Your task to perform on an android device: Show me recent news Image 0: 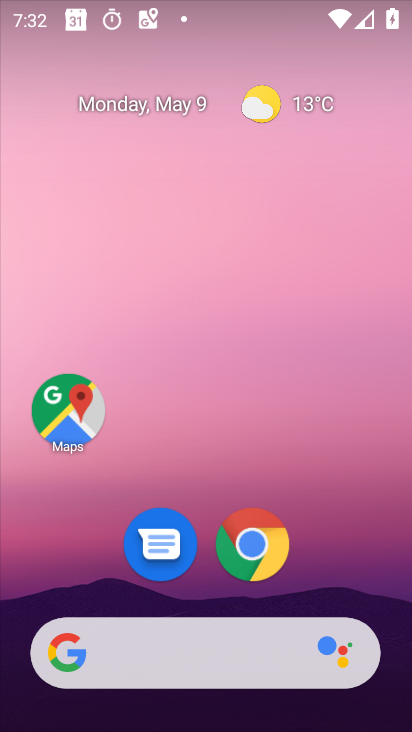
Step 0: drag from (368, 512) to (352, 26)
Your task to perform on an android device: Show me recent news Image 1: 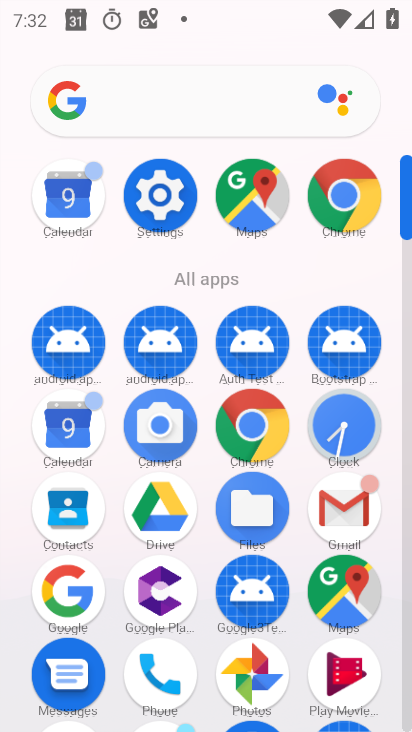
Step 1: click (362, 216)
Your task to perform on an android device: Show me recent news Image 2: 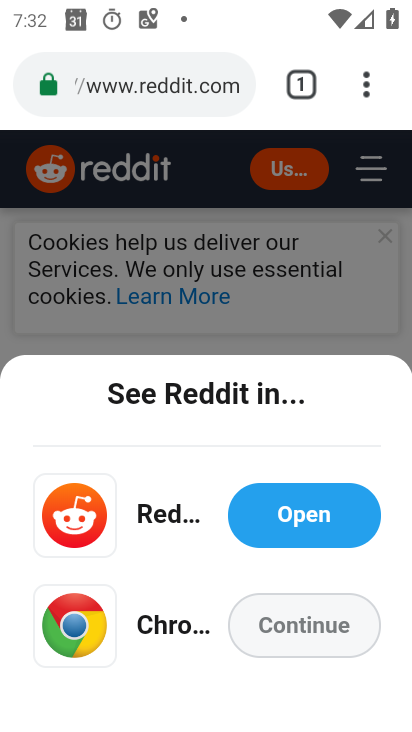
Step 2: task complete